Your task to perform on an android device: Open display settings Image 0: 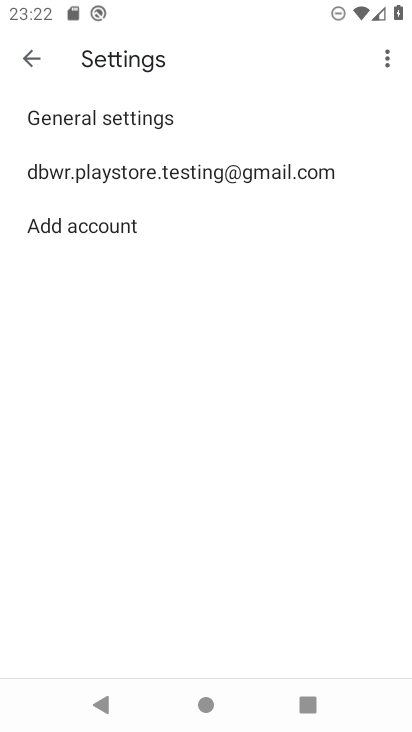
Step 0: press home button
Your task to perform on an android device: Open display settings Image 1: 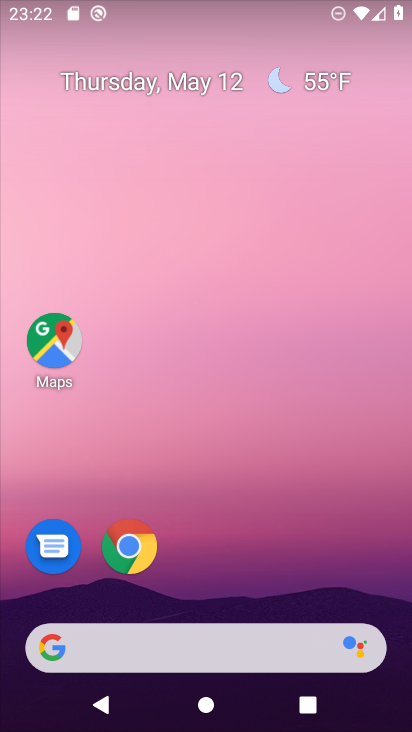
Step 1: drag from (146, 598) to (191, 139)
Your task to perform on an android device: Open display settings Image 2: 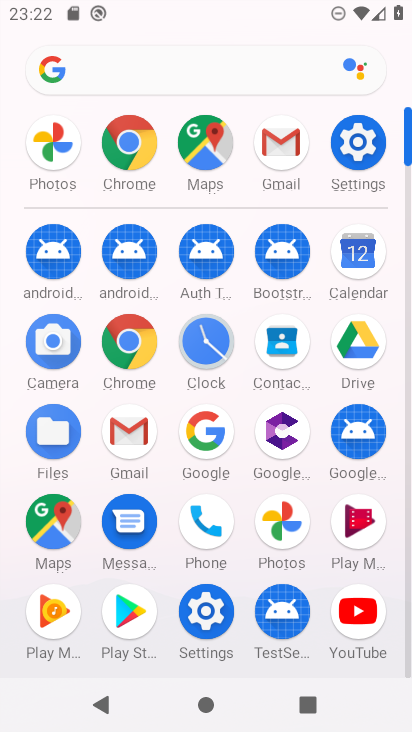
Step 2: click (352, 146)
Your task to perform on an android device: Open display settings Image 3: 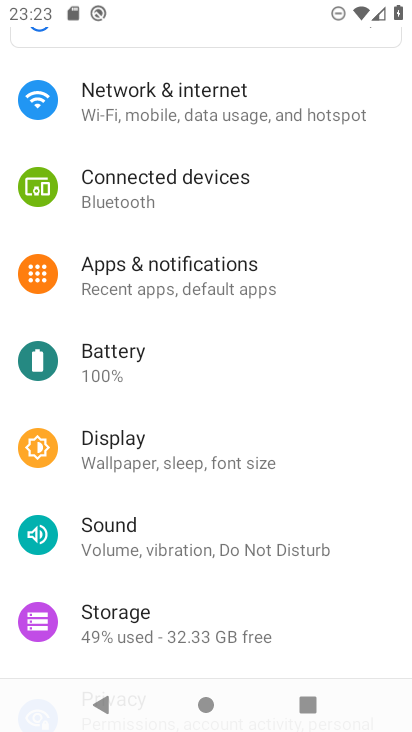
Step 3: click (142, 449)
Your task to perform on an android device: Open display settings Image 4: 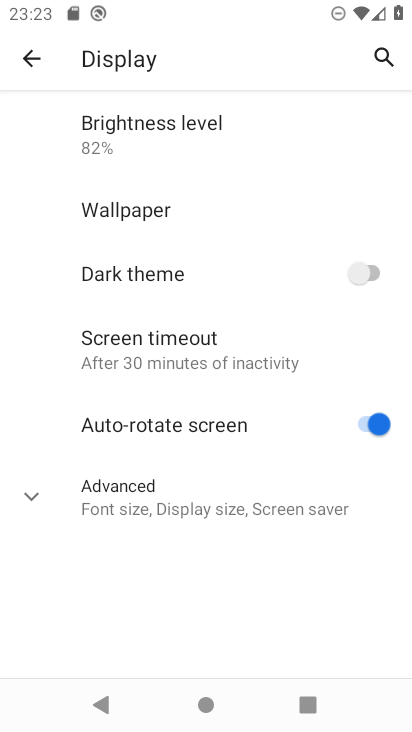
Step 4: task complete